Your task to perform on an android device: Show me the alarms in the clock app Image 0: 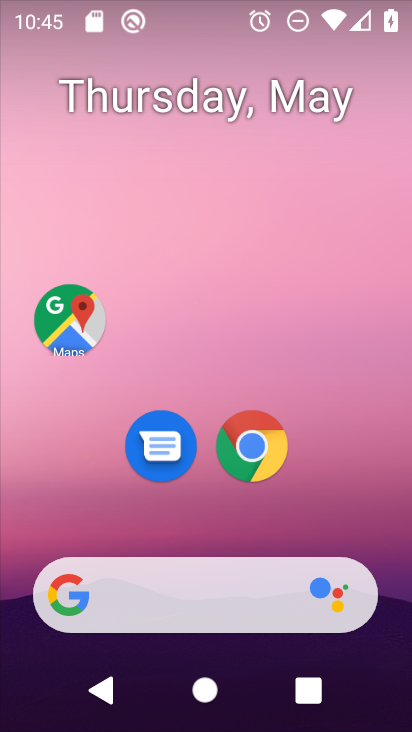
Step 0: drag from (277, 624) to (346, 179)
Your task to perform on an android device: Show me the alarms in the clock app Image 1: 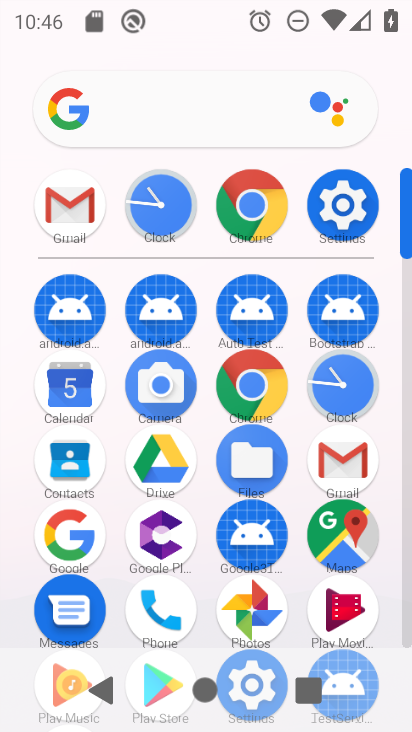
Step 1: click (328, 387)
Your task to perform on an android device: Show me the alarms in the clock app Image 2: 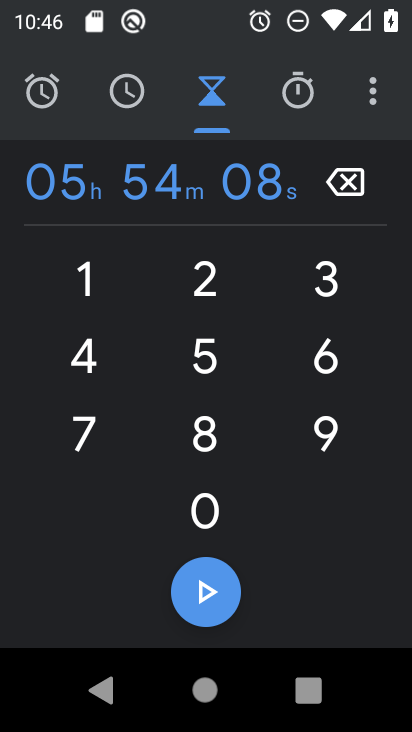
Step 2: click (61, 93)
Your task to perform on an android device: Show me the alarms in the clock app Image 3: 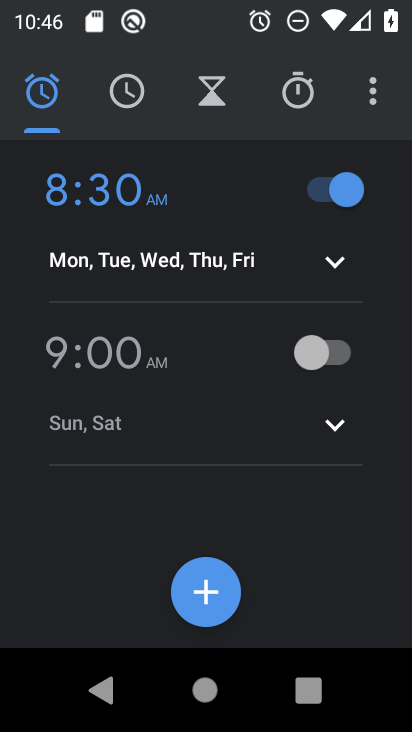
Step 3: click (315, 355)
Your task to perform on an android device: Show me the alarms in the clock app Image 4: 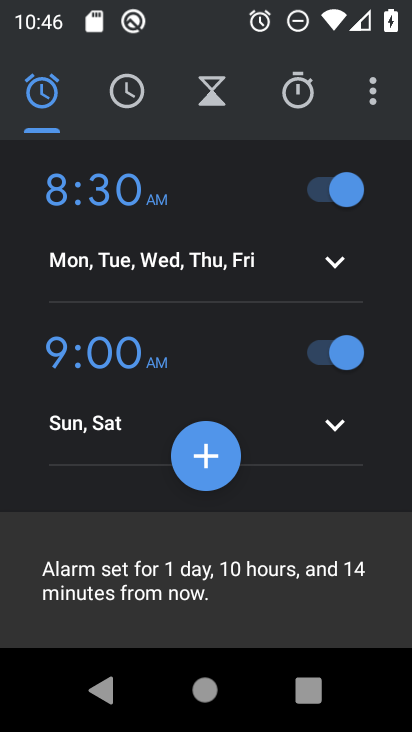
Step 4: task complete